Your task to perform on an android device: Open accessibility settings Image 0: 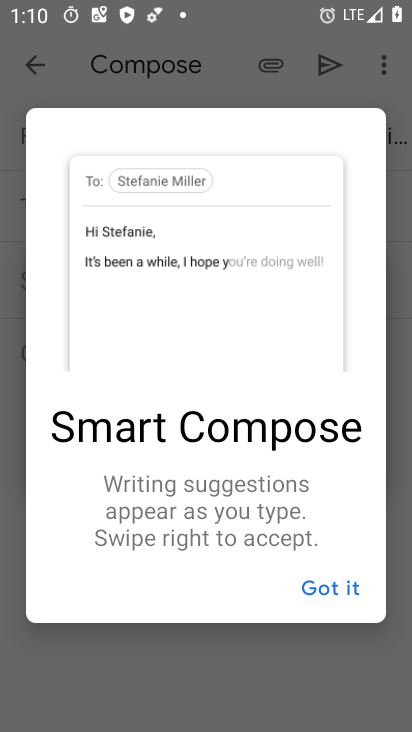
Step 0: press home button
Your task to perform on an android device: Open accessibility settings Image 1: 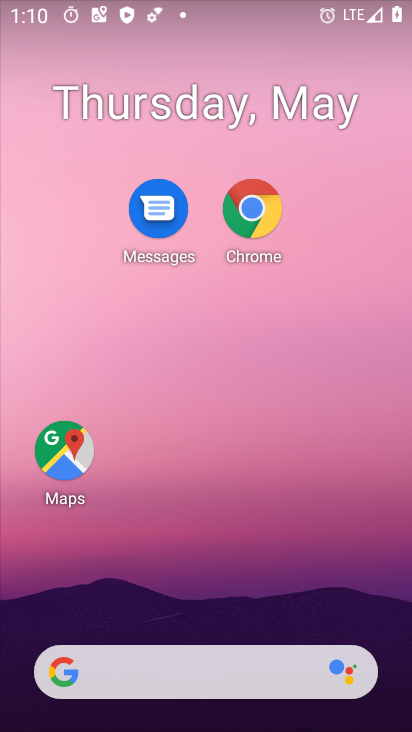
Step 1: drag from (194, 619) to (237, 208)
Your task to perform on an android device: Open accessibility settings Image 2: 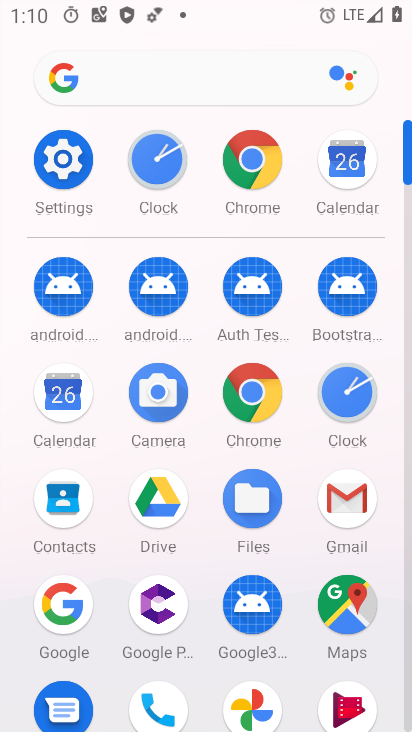
Step 2: click (57, 157)
Your task to perform on an android device: Open accessibility settings Image 3: 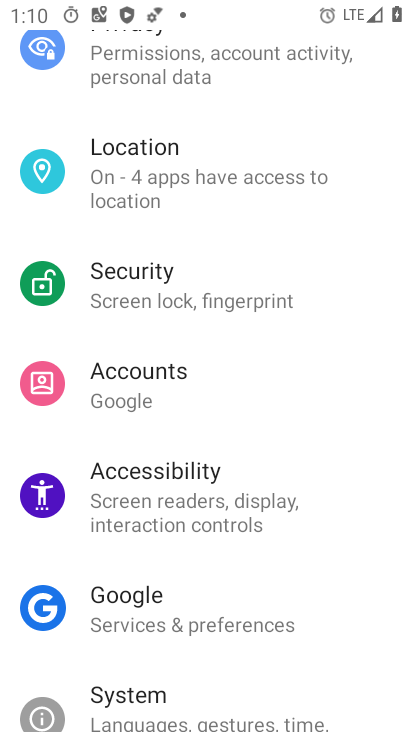
Step 3: click (176, 513)
Your task to perform on an android device: Open accessibility settings Image 4: 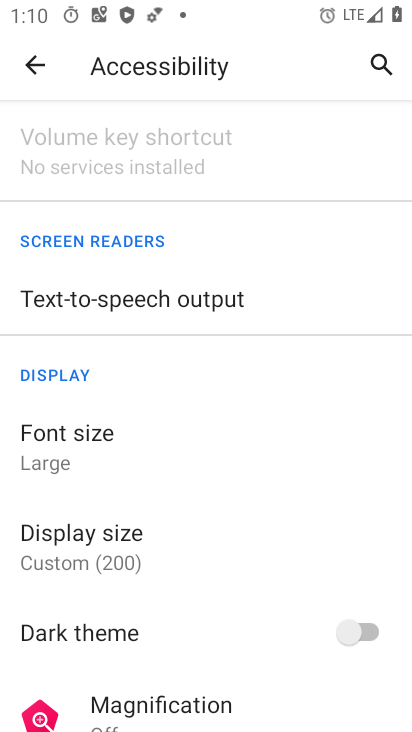
Step 4: task complete